Your task to perform on an android device: Open Google Chrome Image 0: 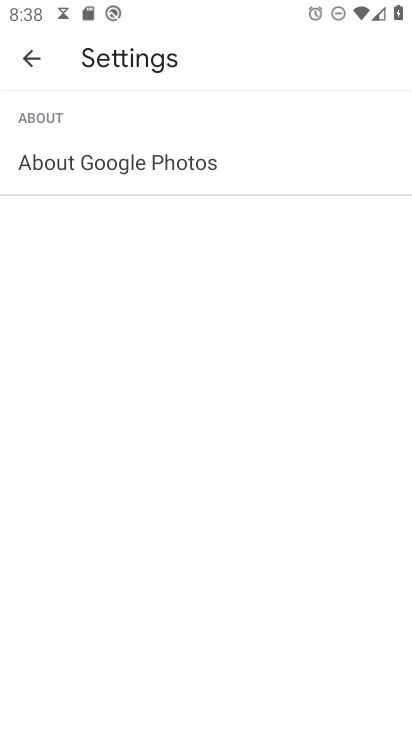
Step 0: press home button
Your task to perform on an android device: Open Google Chrome Image 1: 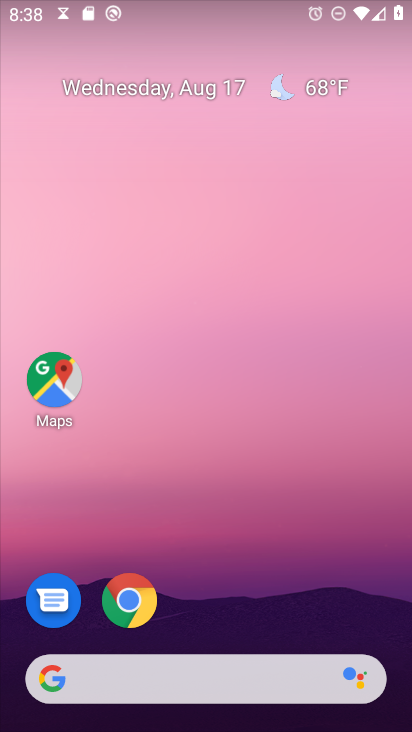
Step 1: click (134, 599)
Your task to perform on an android device: Open Google Chrome Image 2: 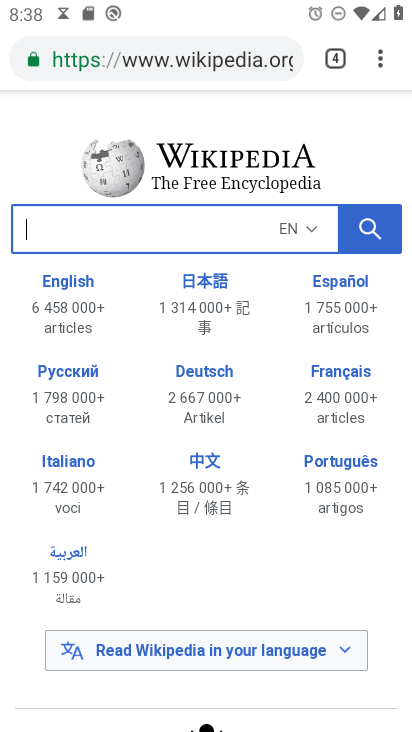
Step 2: task complete